Your task to perform on an android device: check the backup settings in the google photos Image 0: 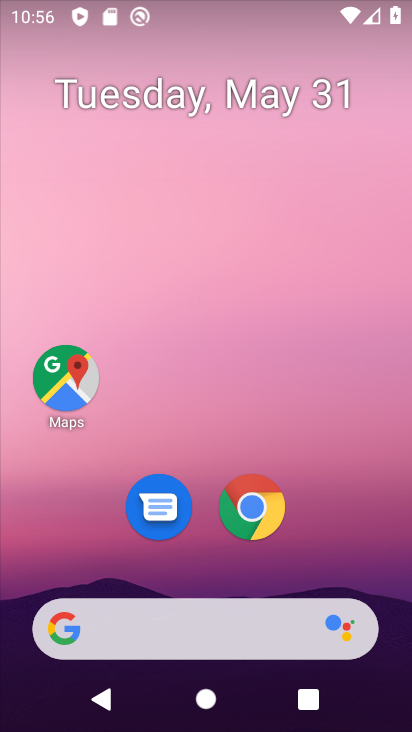
Step 0: drag from (388, 591) to (361, 156)
Your task to perform on an android device: check the backup settings in the google photos Image 1: 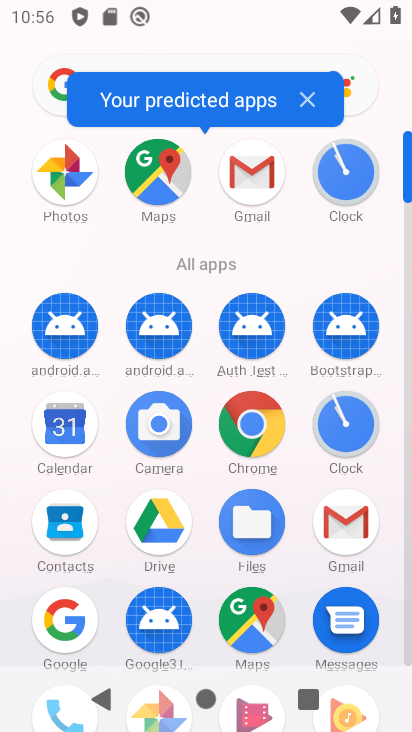
Step 1: click (404, 654)
Your task to perform on an android device: check the backup settings in the google photos Image 2: 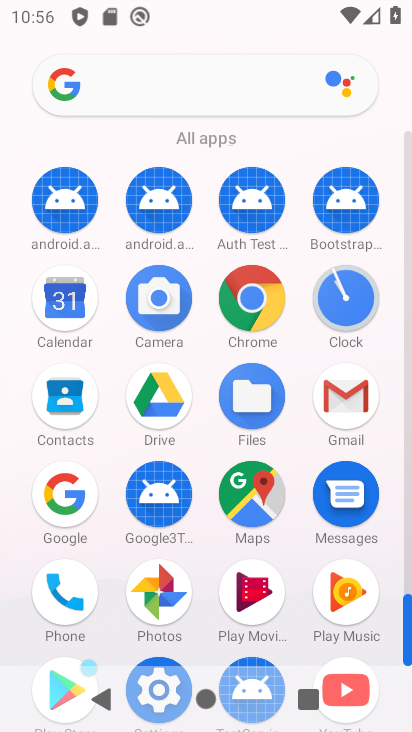
Step 2: click (153, 599)
Your task to perform on an android device: check the backup settings in the google photos Image 3: 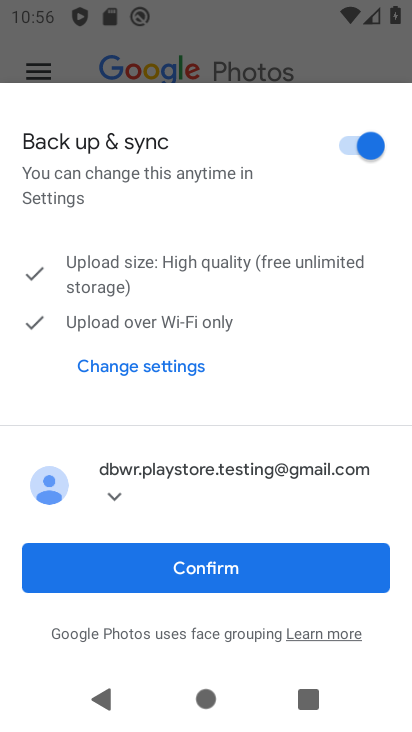
Step 3: click (190, 584)
Your task to perform on an android device: check the backup settings in the google photos Image 4: 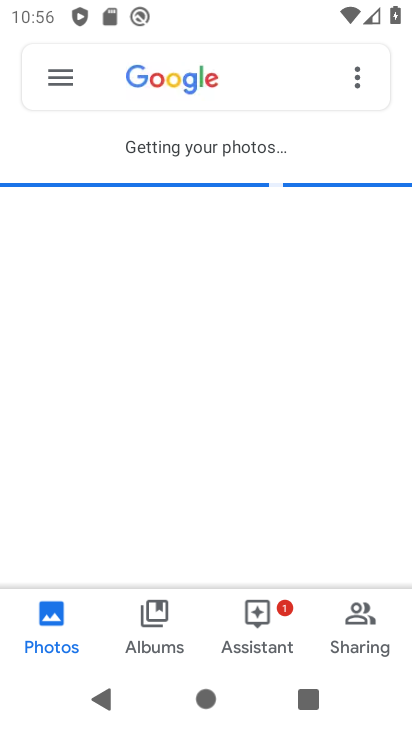
Step 4: click (61, 90)
Your task to perform on an android device: check the backup settings in the google photos Image 5: 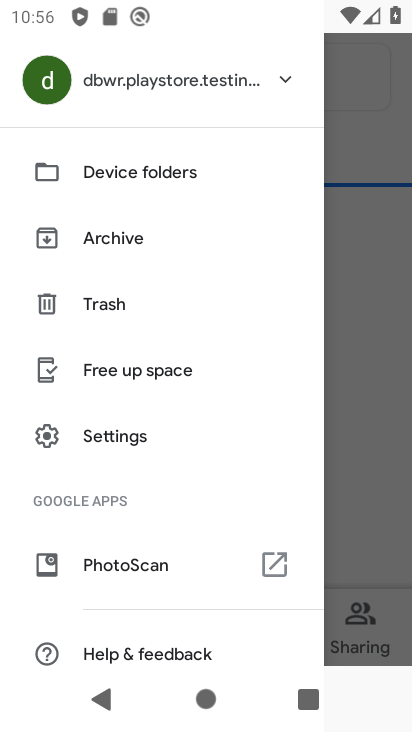
Step 5: click (124, 431)
Your task to perform on an android device: check the backup settings in the google photos Image 6: 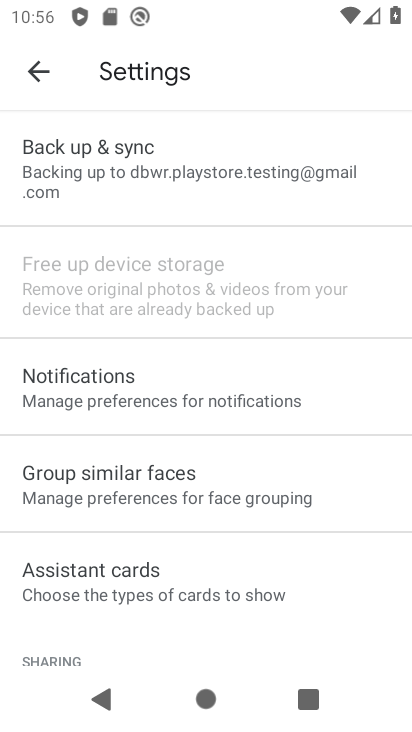
Step 6: click (164, 188)
Your task to perform on an android device: check the backup settings in the google photos Image 7: 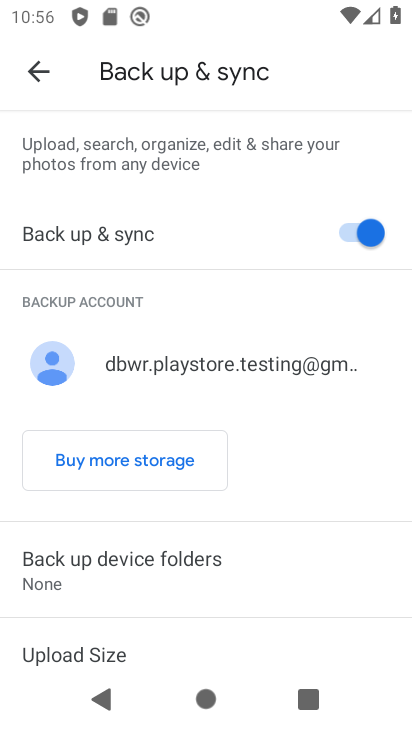
Step 7: task complete